Your task to perform on an android device: turn on wifi Image 0: 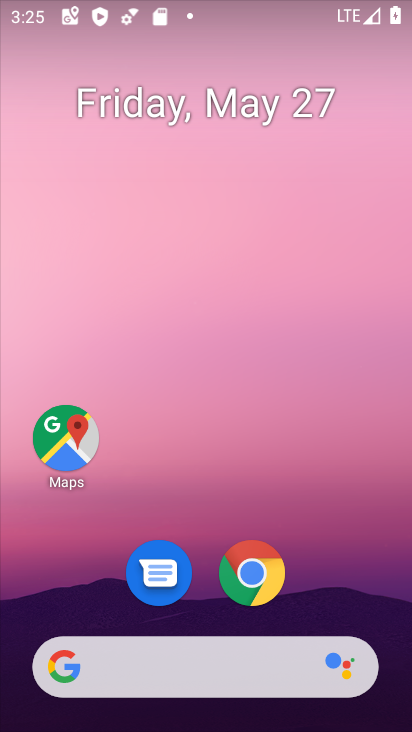
Step 0: drag from (245, 476) to (248, 47)
Your task to perform on an android device: turn on wifi Image 1: 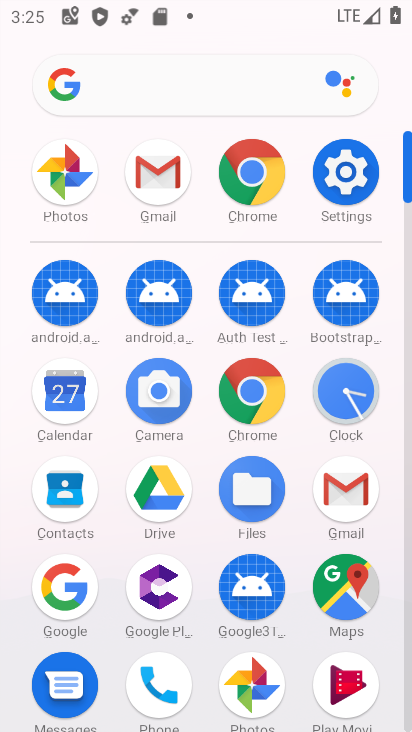
Step 1: click (355, 169)
Your task to perform on an android device: turn on wifi Image 2: 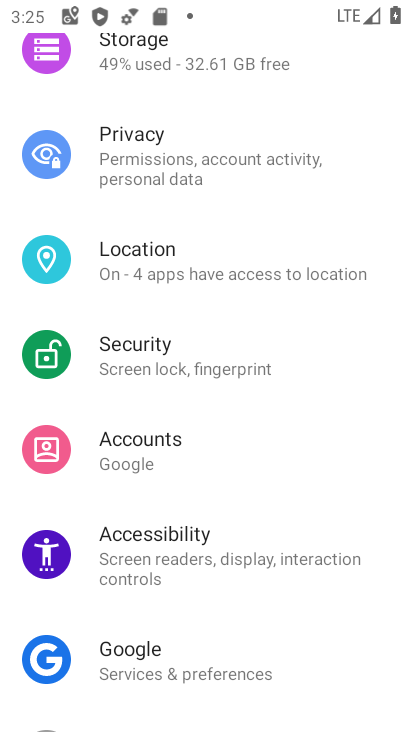
Step 2: drag from (251, 125) to (320, 486)
Your task to perform on an android device: turn on wifi Image 3: 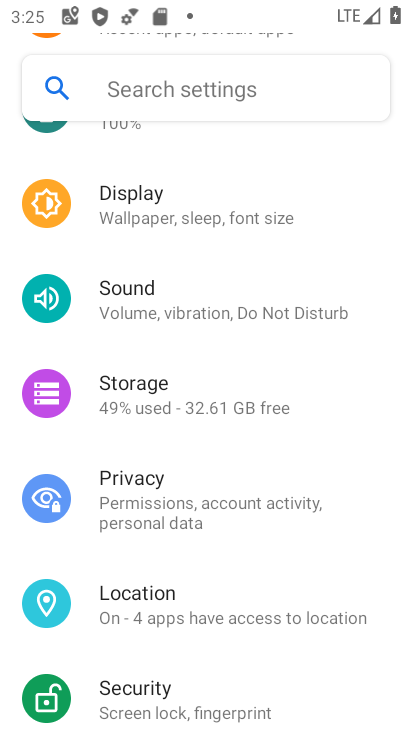
Step 3: drag from (166, 213) to (241, 602)
Your task to perform on an android device: turn on wifi Image 4: 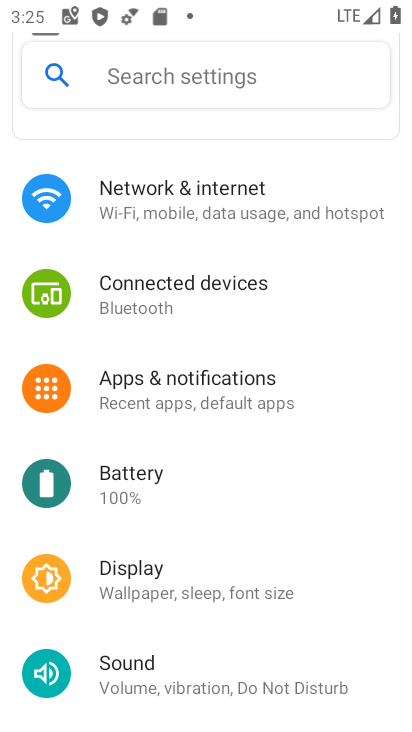
Step 4: click (176, 210)
Your task to perform on an android device: turn on wifi Image 5: 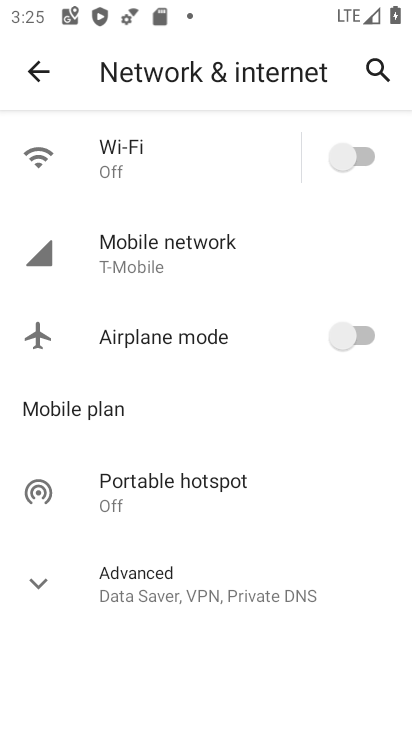
Step 5: click (354, 153)
Your task to perform on an android device: turn on wifi Image 6: 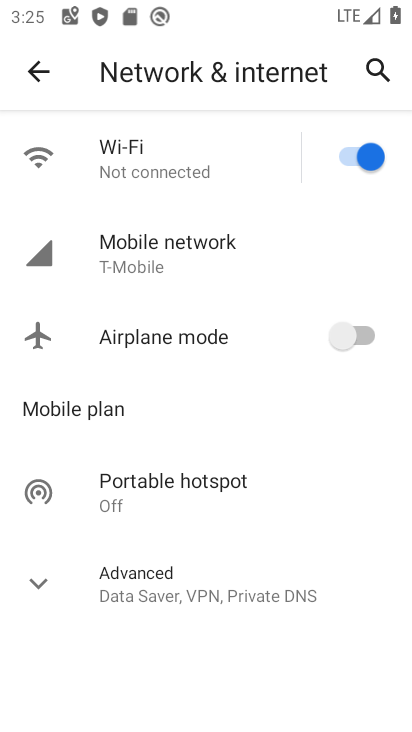
Step 6: task complete